Your task to perform on an android device: Go to Google maps Image 0: 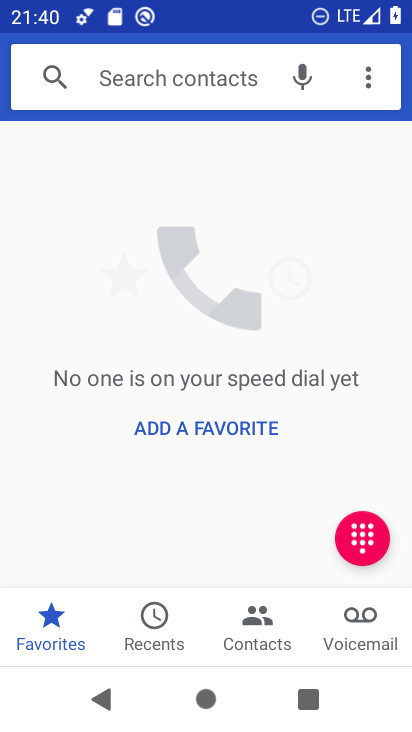
Step 0: press home button
Your task to perform on an android device: Go to Google maps Image 1: 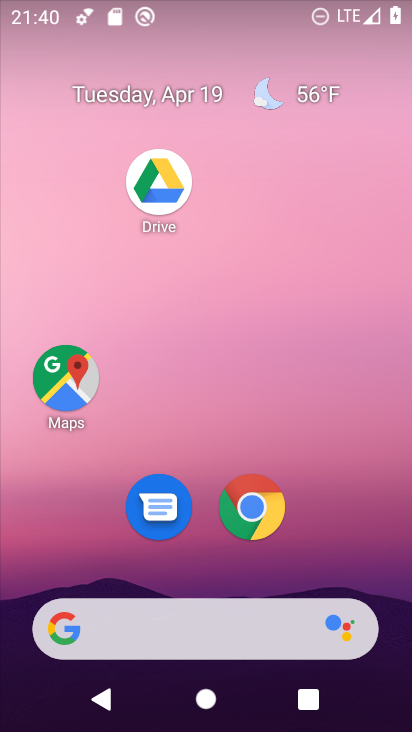
Step 1: click (60, 375)
Your task to perform on an android device: Go to Google maps Image 2: 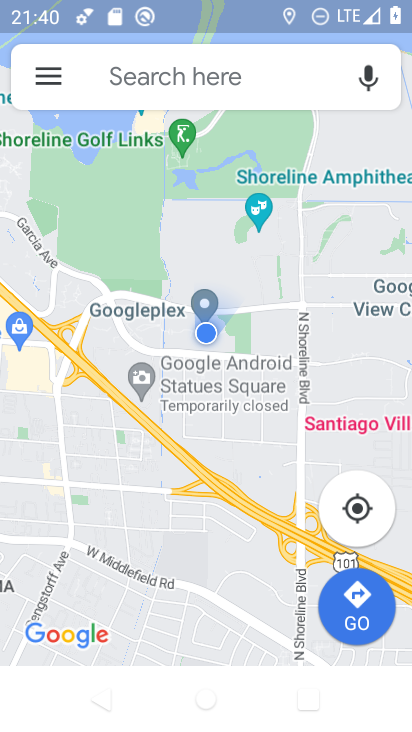
Step 2: task complete